Your task to perform on an android device: Go to Amazon Image 0: 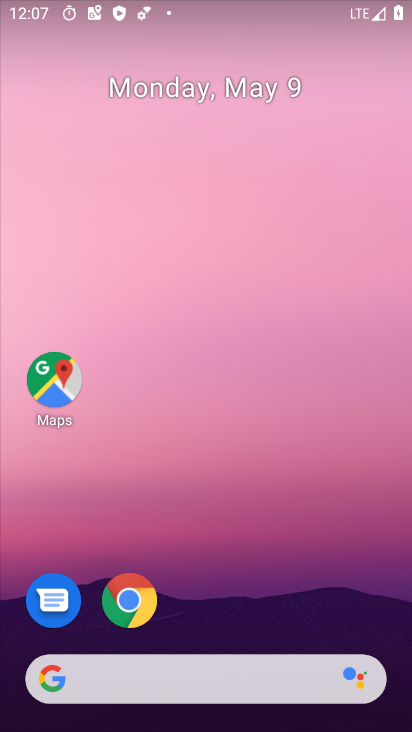
Step 0: drag from (197, 603) to (242, 228)
Your task to perform on an android device: Go to Amazon Image 1: 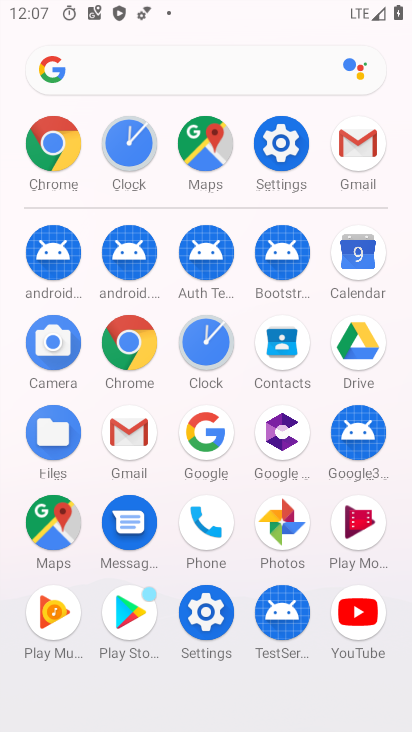
Step 1: click (143, 358)
Your task to perform on an android device: Go to Amazon Image 2: 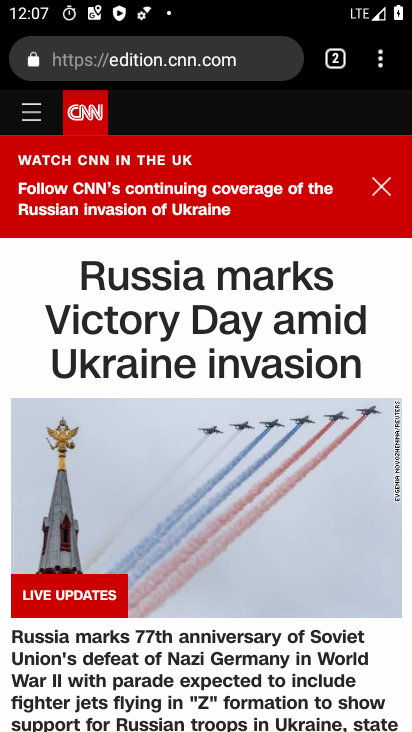
Step 2: click (323, 66)
Your task to perform on an android device: Go to Amazon Image 3: 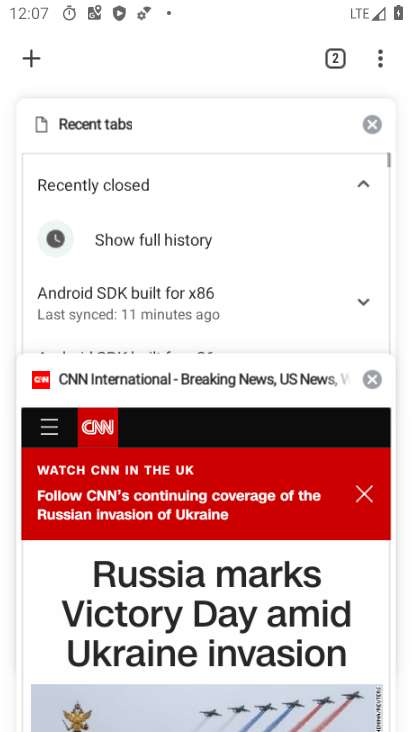
Step 3: click (30, 71)
Your task to perform on an android device: Go to Amazon Image 4: 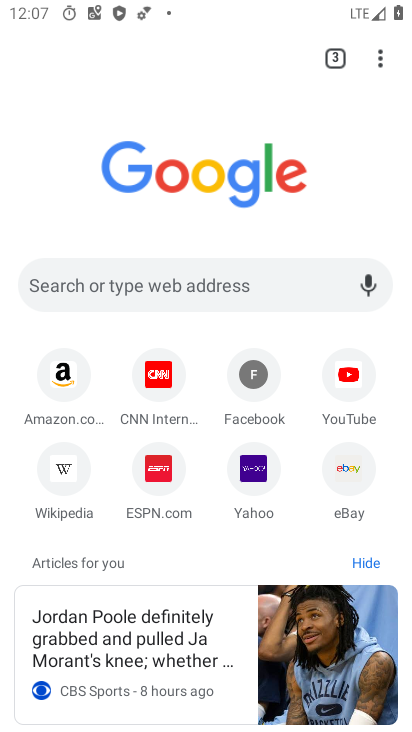
Step 4: click (33, 389)
Your task to perform on an android device: Go to Amazon Image 5: 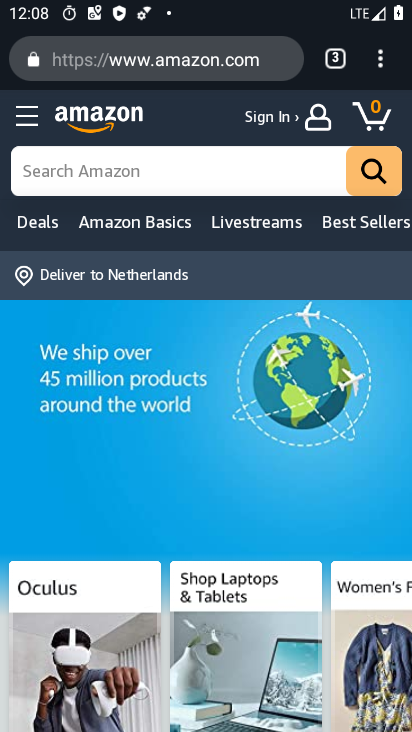
Step 5: task complete